Your task to perform on an android device: turn pop-ups on in chrome Image 0: 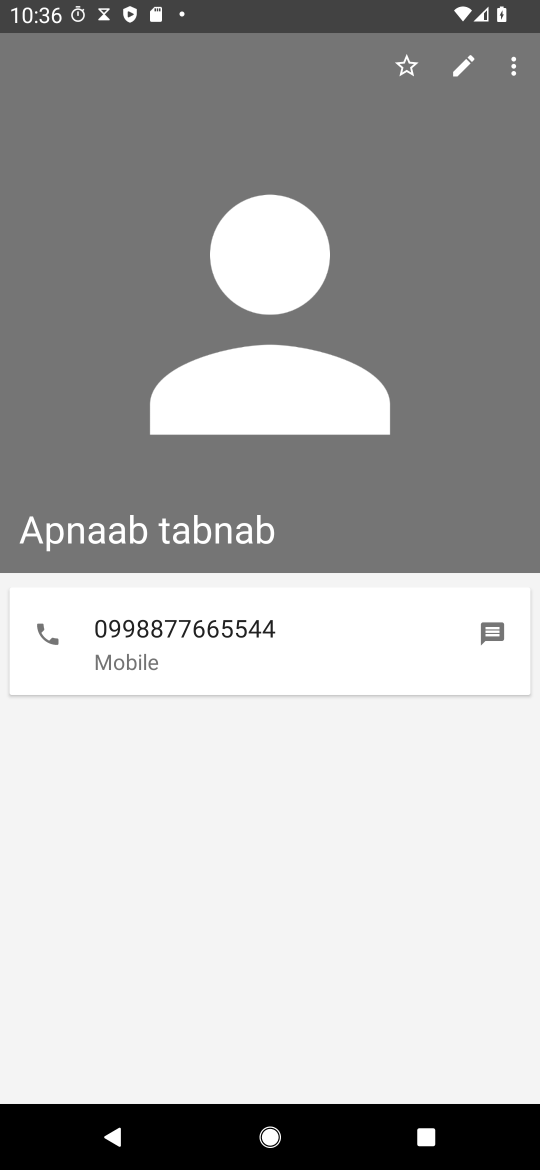
Step 0: press home button
Your task to perform on an android device: turn pop-ups on in chrome Image 1: 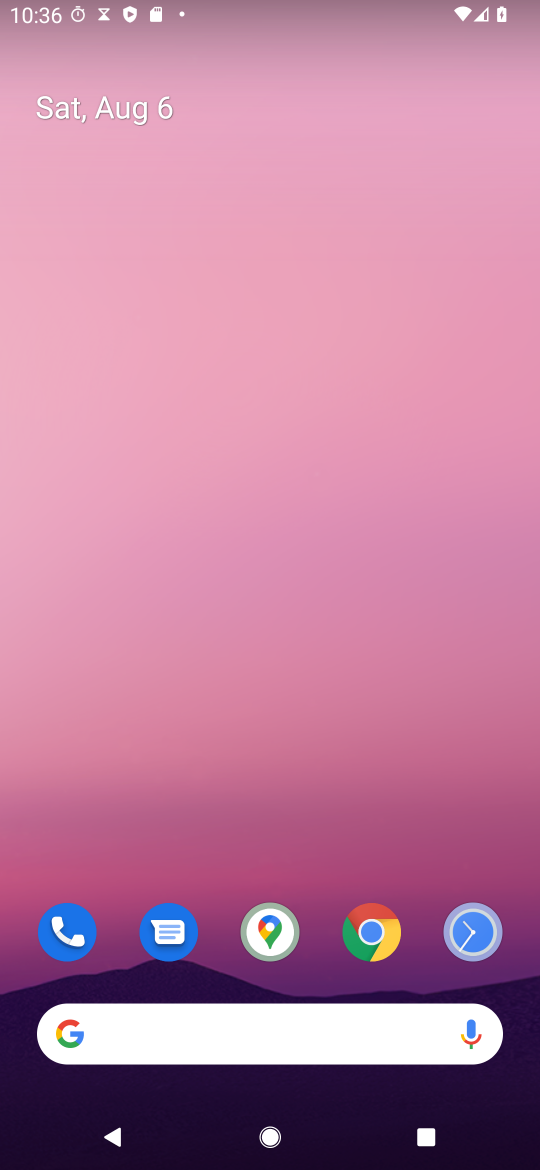
Step 1: click (372, 929)
Your task to perform on an android device: turn pop-ups on in chrome Image 2: 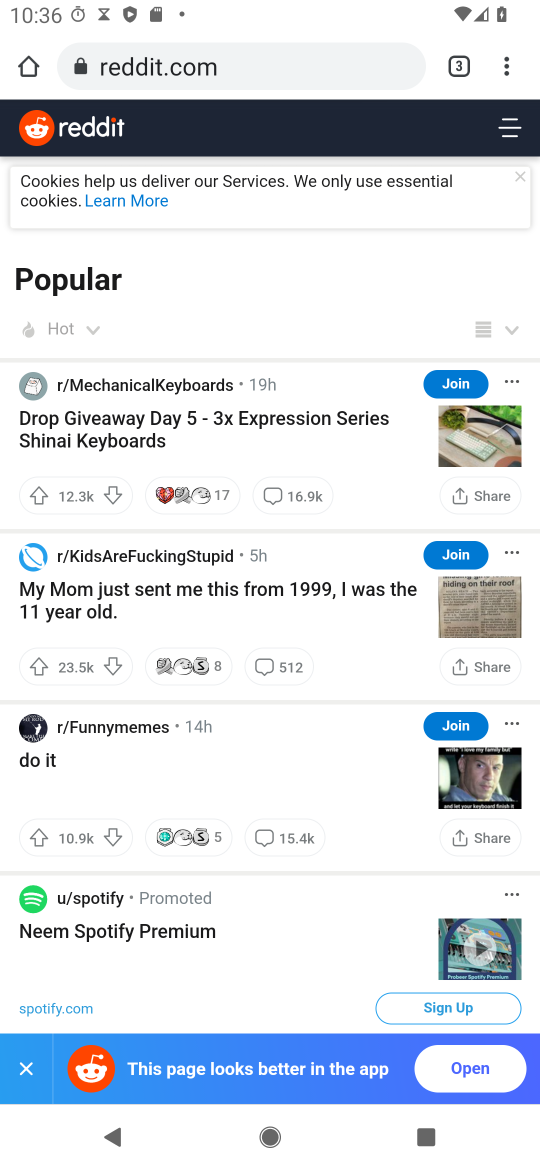
Step 2: click (508, 71)
Your task to perform on an android device: turn pop-ups on in chrome Image 3: 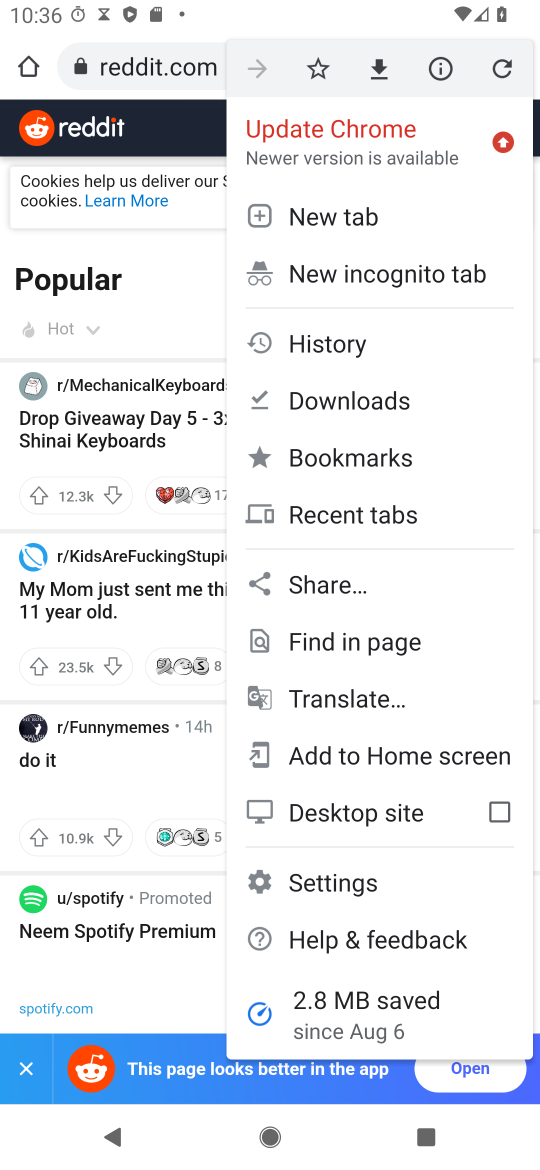
Step 3: click (350, 887)
Your task to perform on an android device: turn pop-ups on in chrome Image 4: 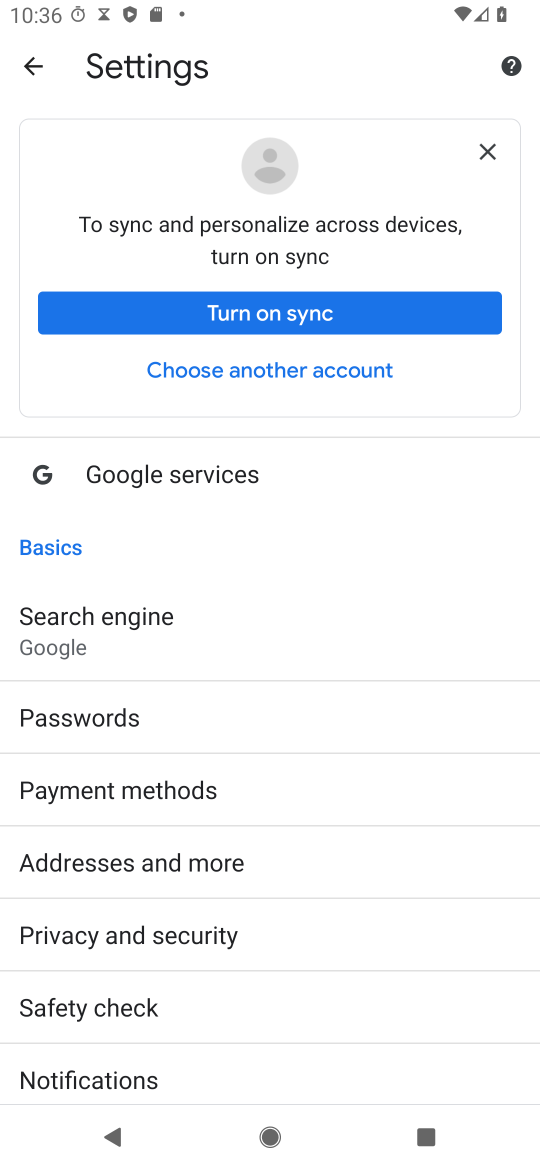
Step 4: drag from (172, 983) to (215, 737)
Your task to perform on an android device: turn pop-ups on in chrome Image 5: 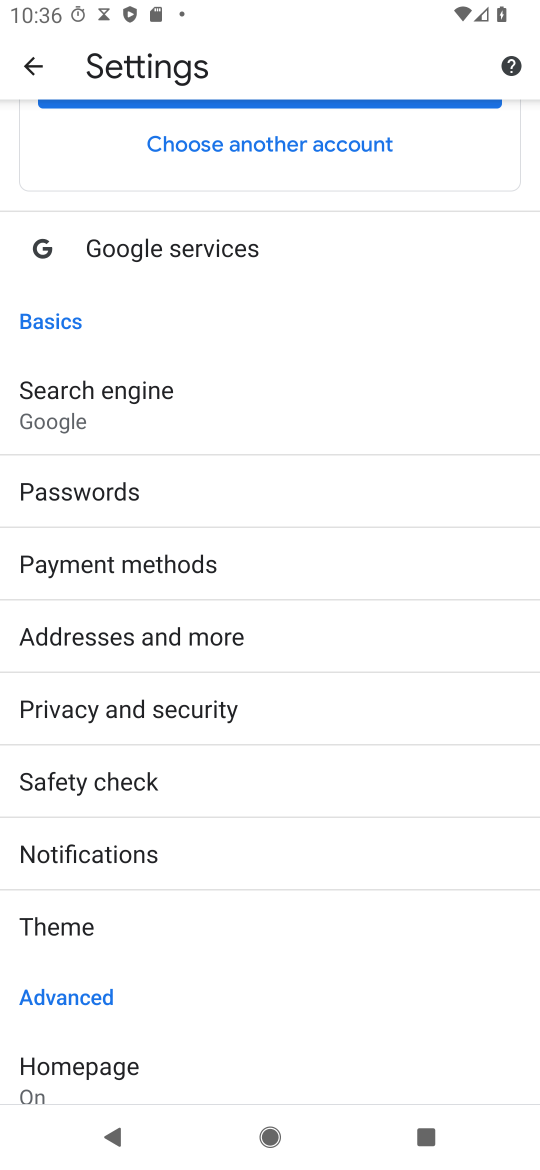
Step 5: drag from (150, 888) to (216, 757)
Your task to perform on an android device: turn pop-ups on in chrome Image 6: 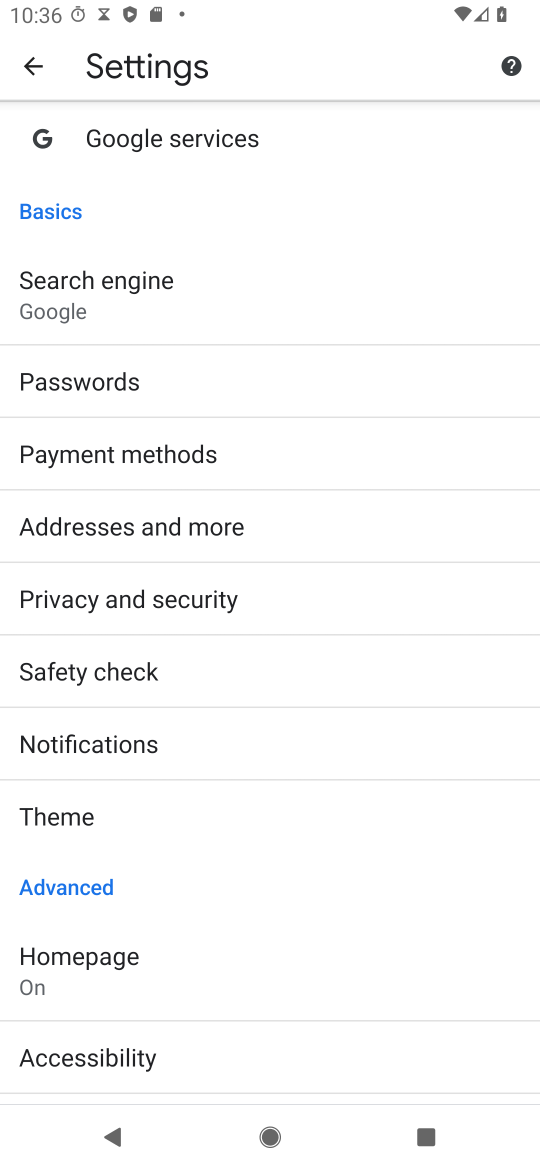
Step 6: drag from (133, 902) to (270, 675)
Your task to perform on an android device: turn pop-ups on in chrome Image 7: 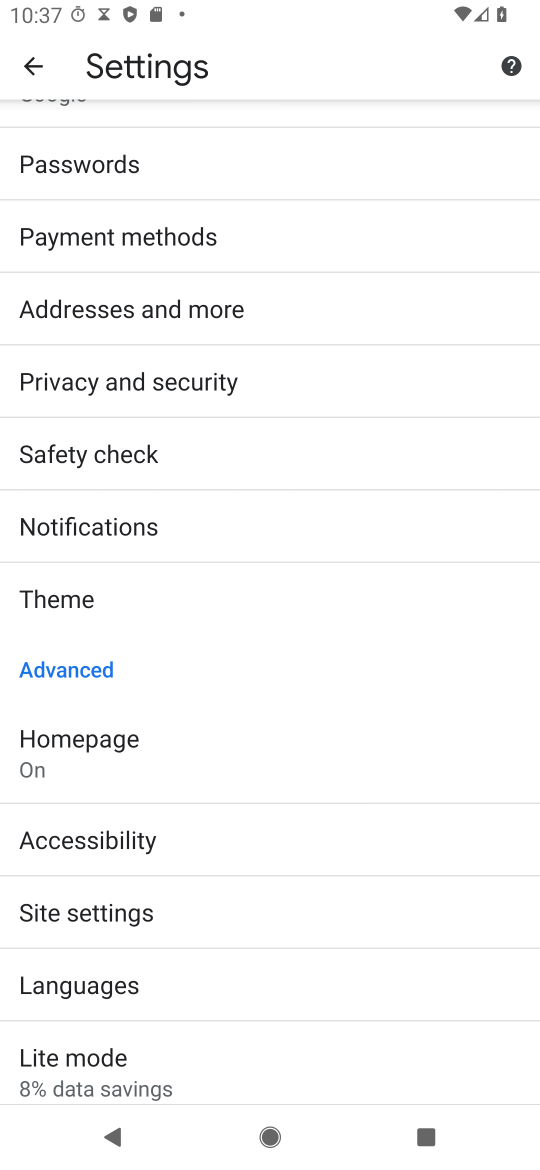
Step 7: drag from (181, 856) to (228, 725)
Your task to perform on an android device: turn pop-ups on in chrome Image 8: 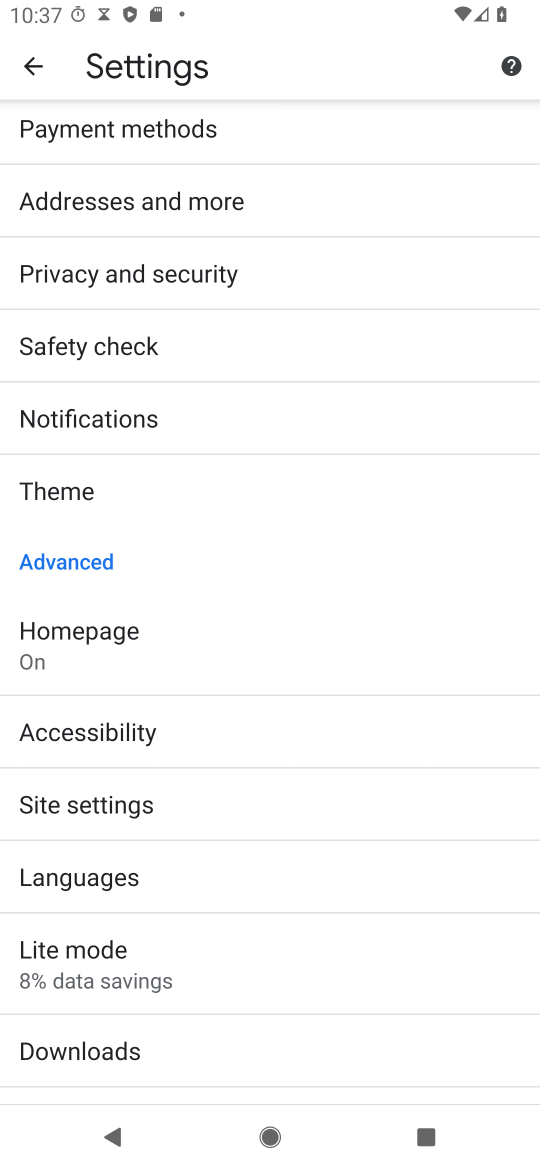
Step 8: drag from (177, 842) to (252, 695)
Your task to perform on an android device: turn pop-ups on in chrome Image 9: 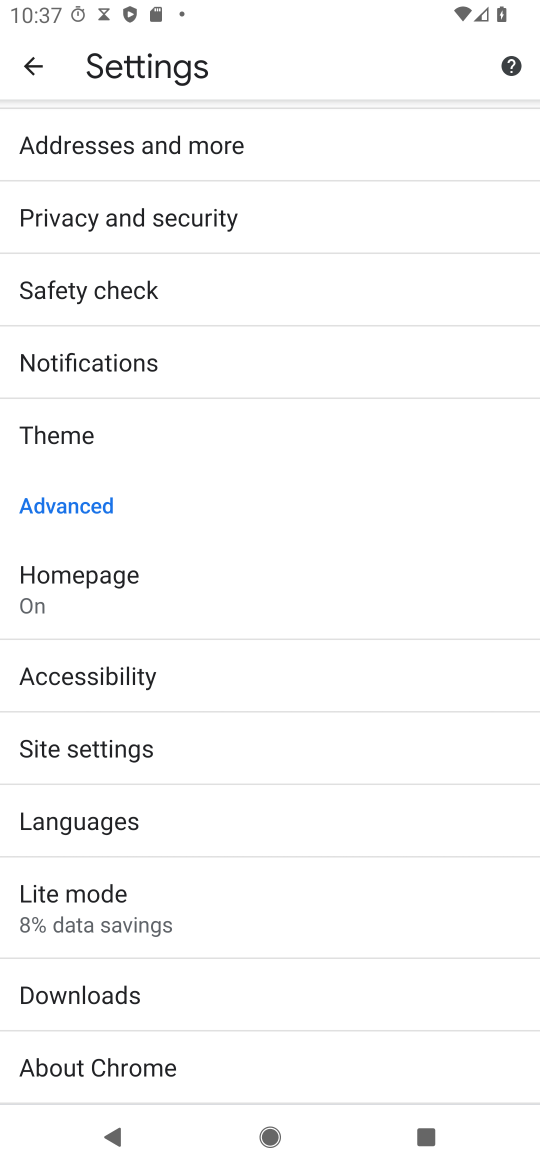
Step 9: click (137, 742)
Your task to perform on an android device: turn pop-ups on in chrome Image 10: 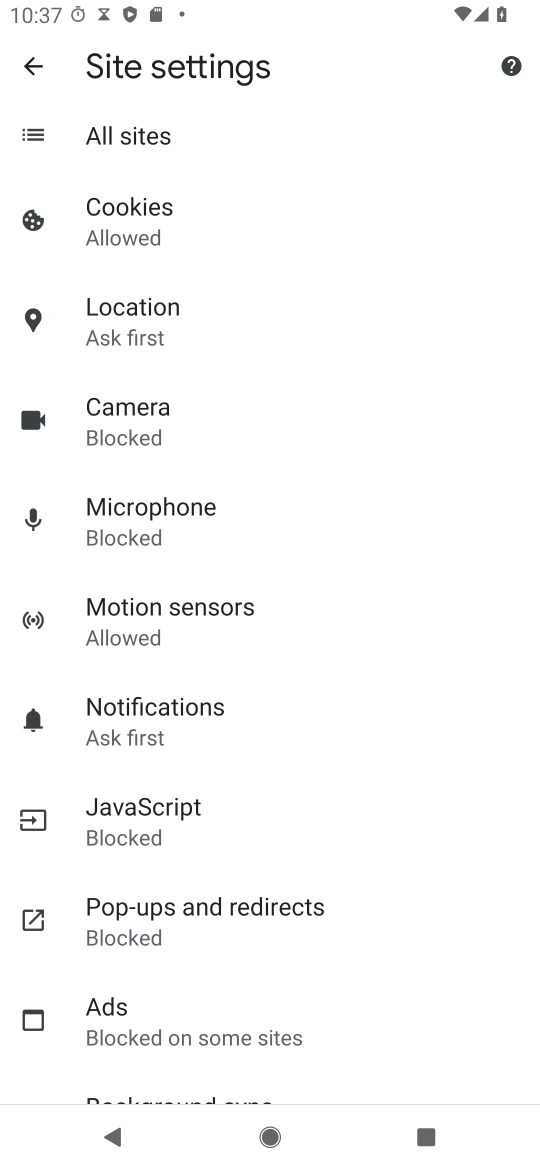
Step 10: click (158, 901)
Your task to perform on an android device: turn pop-ups on in chrome Image 11: 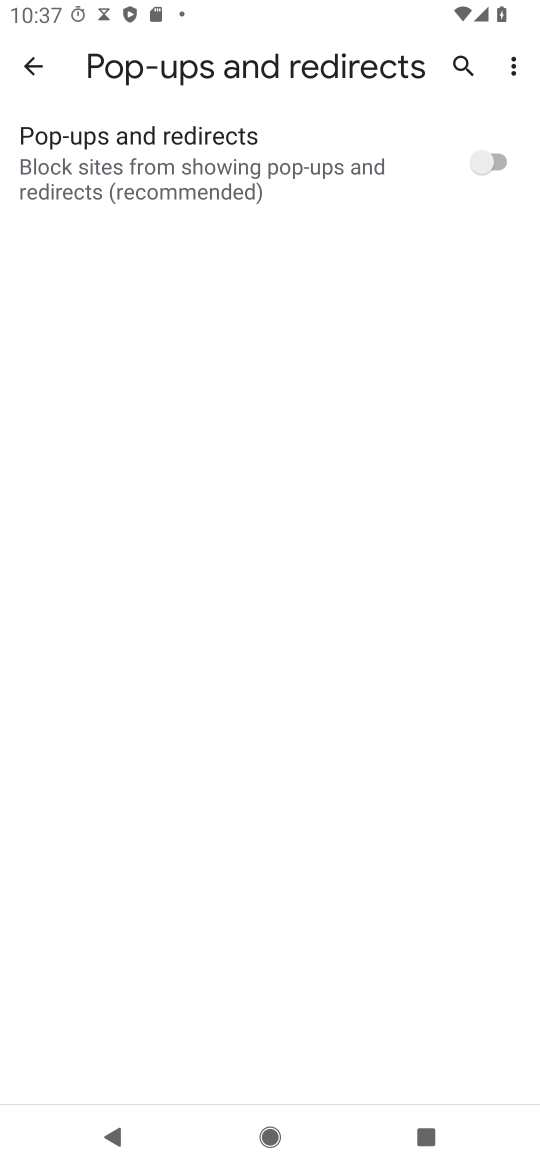
Step 11: click (496, 142)
Your task to perform on an android device: turn pop-ups on in chrome Image 12: 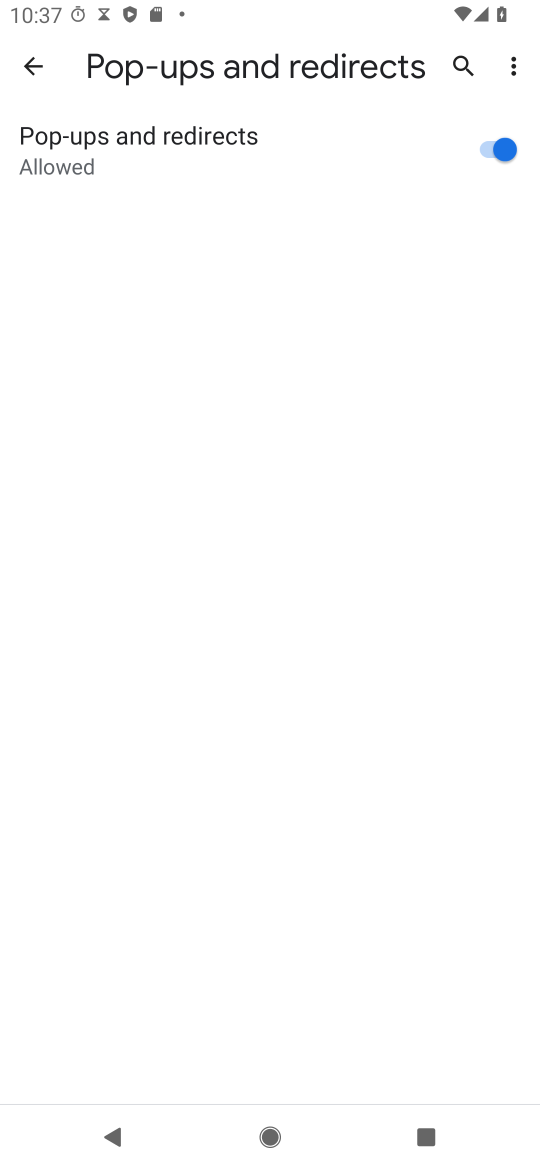
Step 12: task complete